Your task to perform on an android device: turn on sleep mode Image 0: 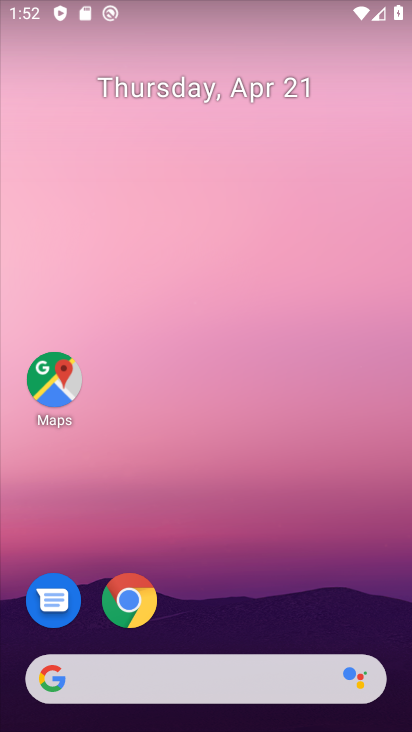
Step 0: drag from (280, 600) to (300, 105)
Your task to perform on an android device: turn on sleep mode Image 1: 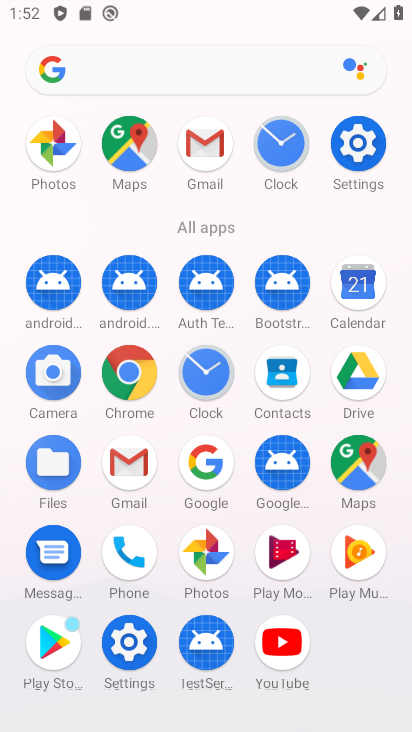
Step 1: click (357, 145)
Your task to perform on an android device: turn on sleep mode Image 2: 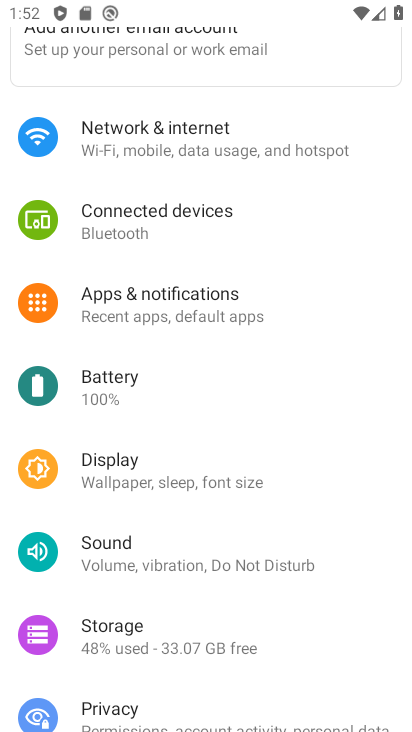
Step 2: click (153, 468)
Your task to perform on an android device: turn on sleep mode Image 3: 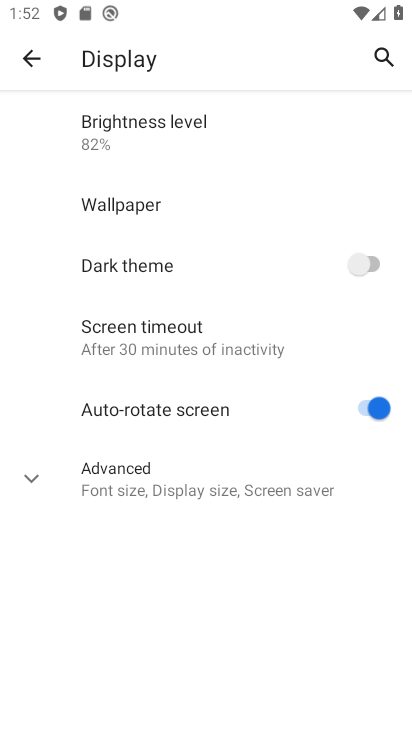
Step 3: click (173, 337)
Your task to perform on an android device: turn on sleep mode Image 4: 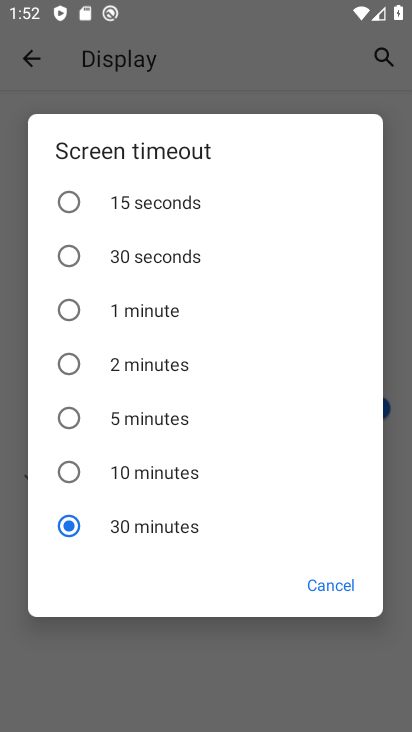
Step 4: task complete